Your task to perform on an android device: turn off translation in the chrome app Image 0: 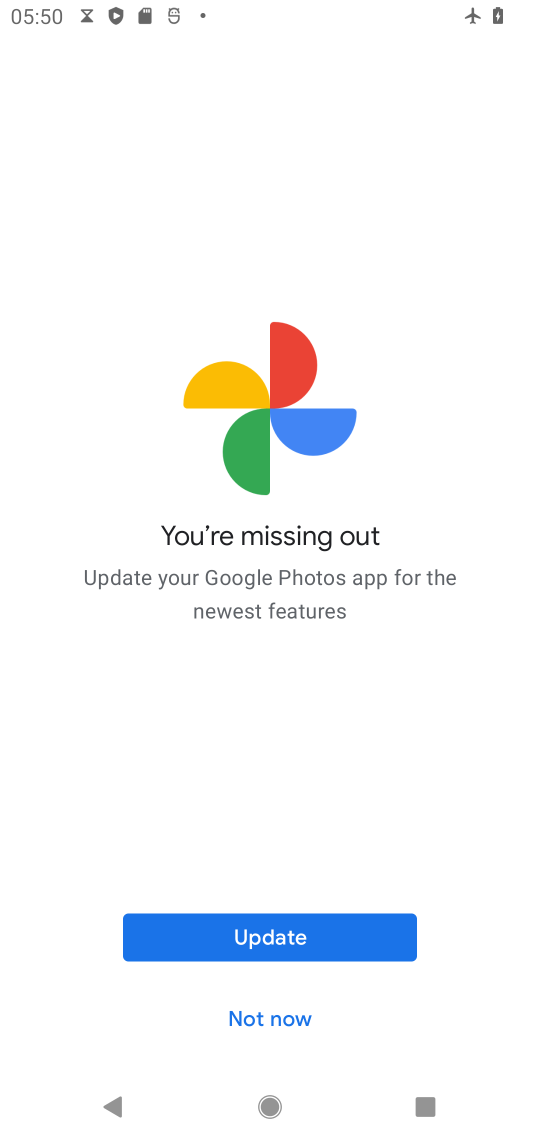
Step 0: press home button
Your task to perform on an android device: turn off translation in the chrome app Image 1: 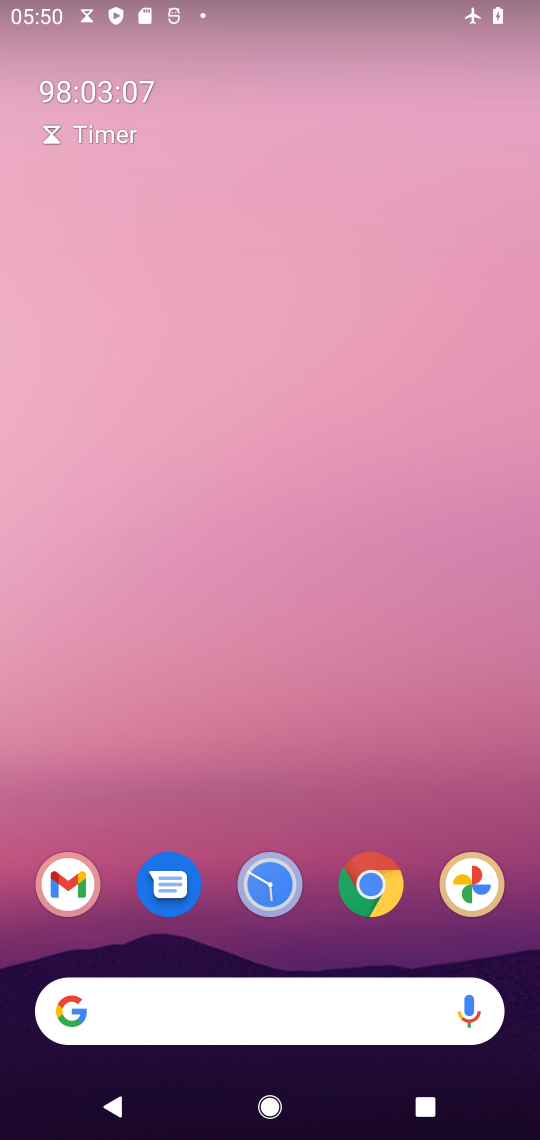
Step 1: drag from (187, 867) to (303, 337)
Your task to perform on an android device: turn off translation in the chrome app Image 2: 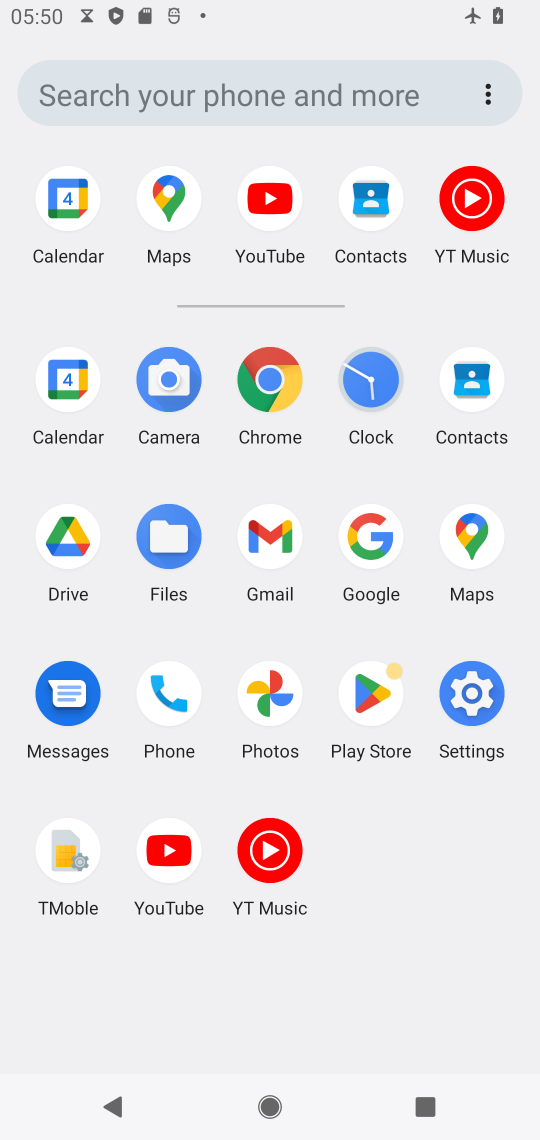
Step 2: click (480, 678)
Your task to perform on an android device: turn off translation in the chrome app Image 3: 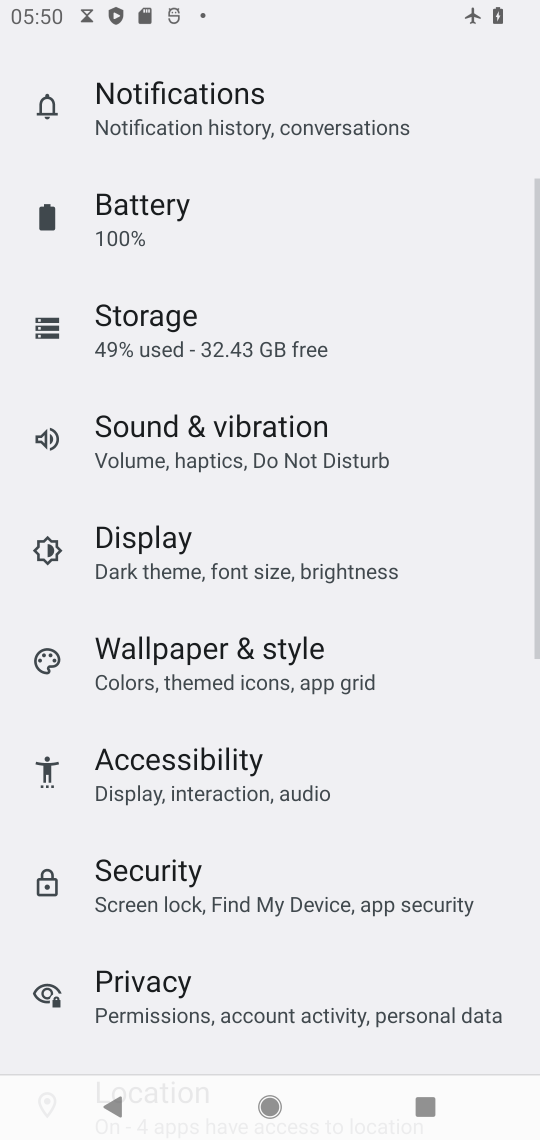
Step 3: press home button
Your task to perform on an android device: turn off translation in the chrome app Image 4: 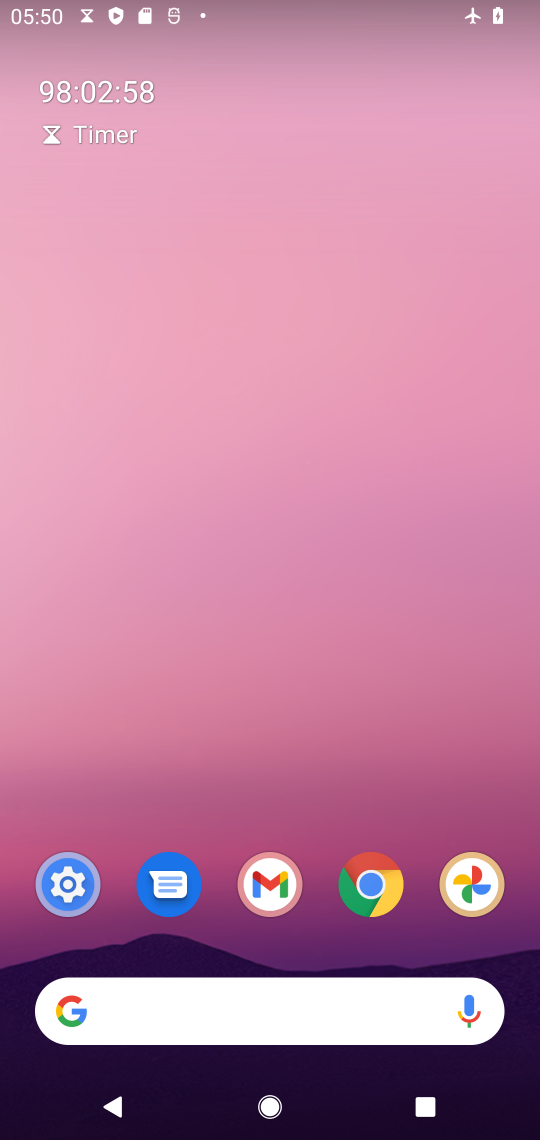
Step 4: drag from (331, 932) to (324, 131)
Your task to perform on an android device: turn off translation in the chrome app Image 5: 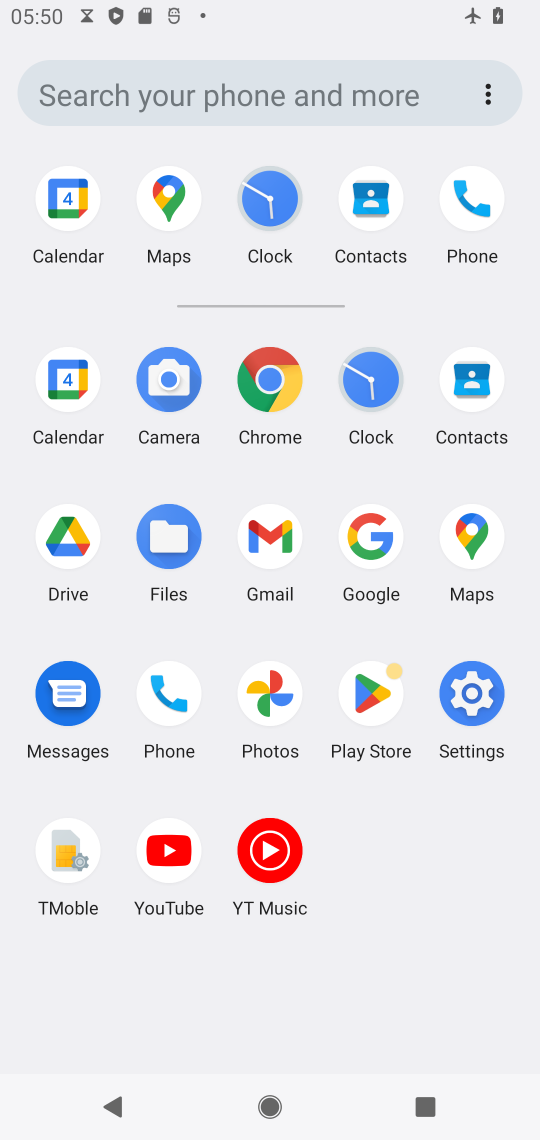
Step 5: click (258, 371)
Your task to perform on an android device: turn off translation in the chrome app Image 6: 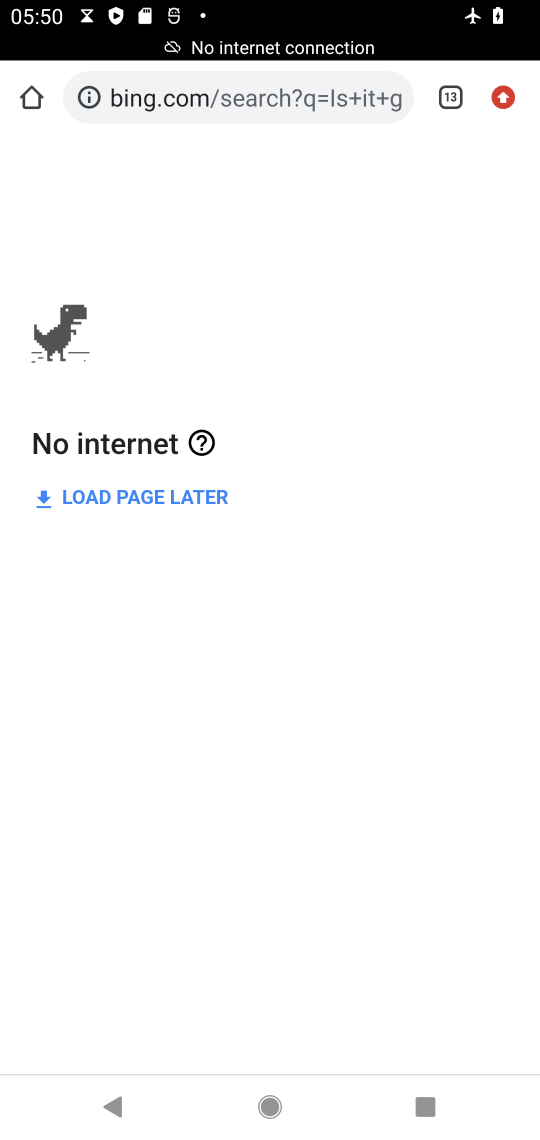
Step 6: click (504, 93)
Your task to perform on an android device: turn off translation in the chrome app Image 7: 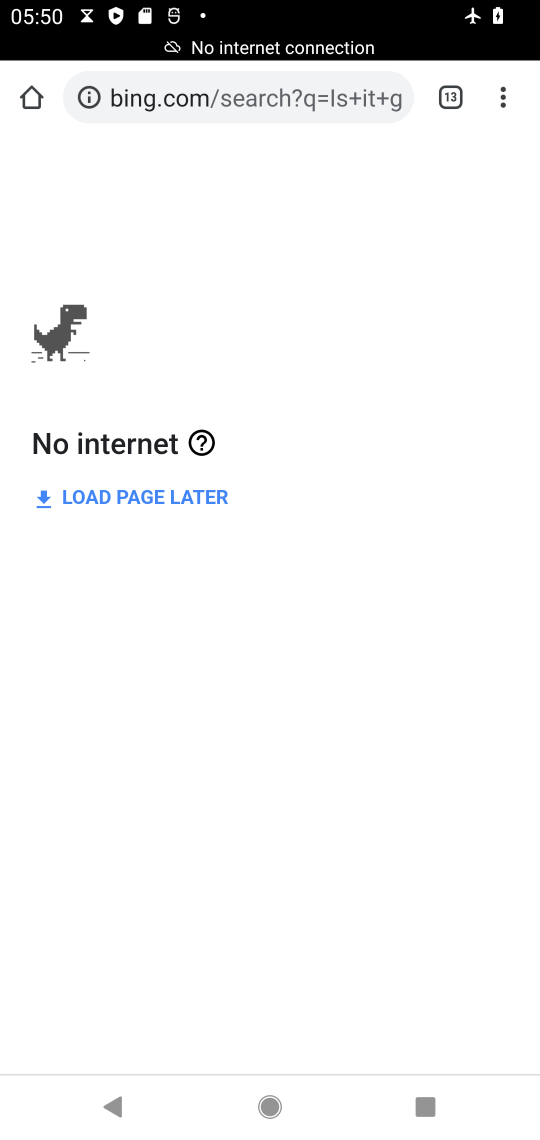
Step 7: click (504, 99)
Your task to perform on an android device: turn off translation in the chrome app Image 8: 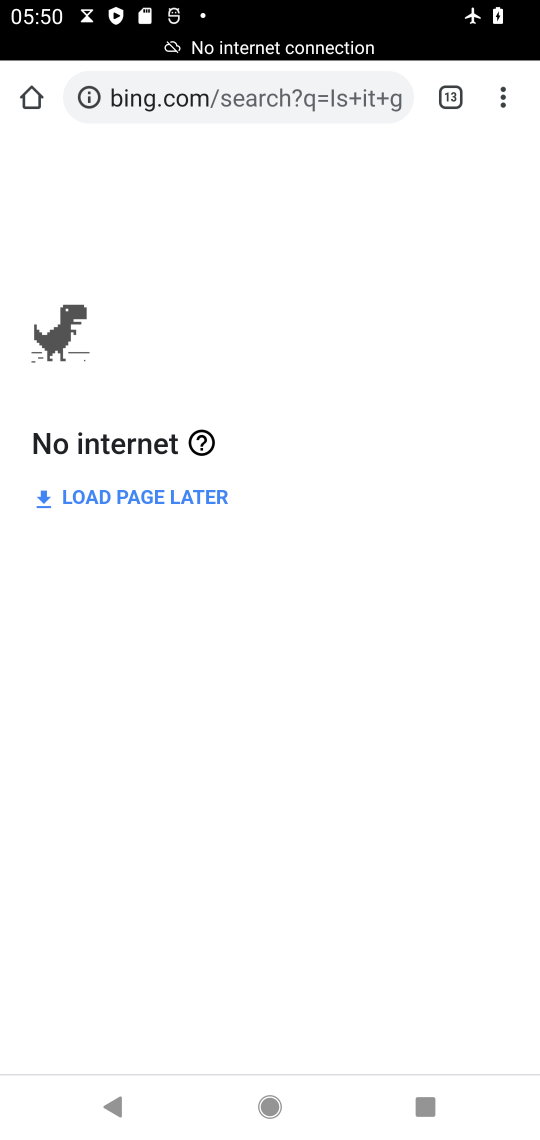
Step 8: click (504, 99)
Your task to perform on an android device: turn off translation in the chrome app Image 9: 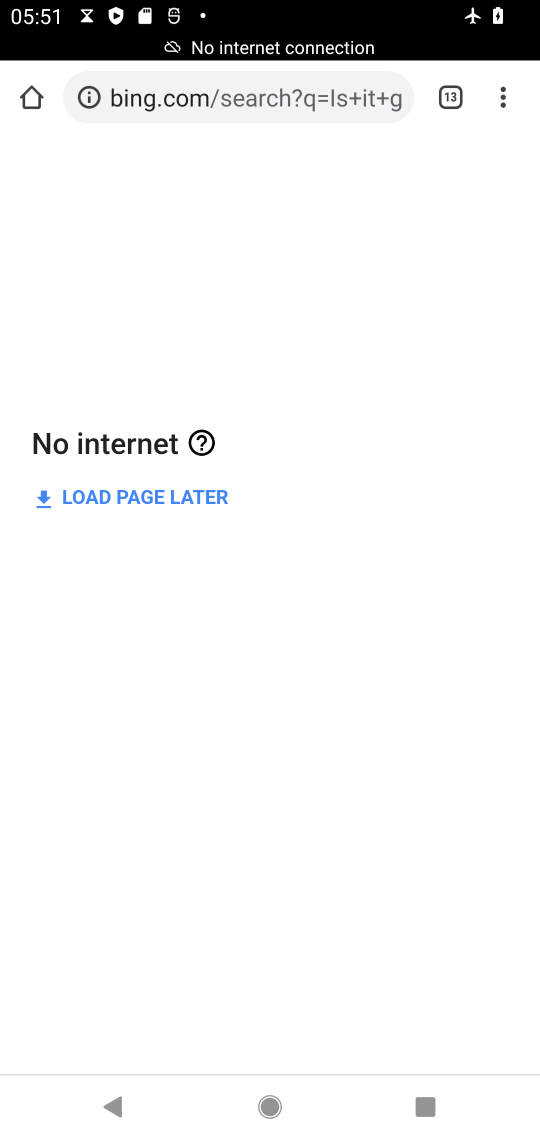
Step 9: click (494, 95)
Your task to perform on an android device: turn off translation in the chrome app Image 10: 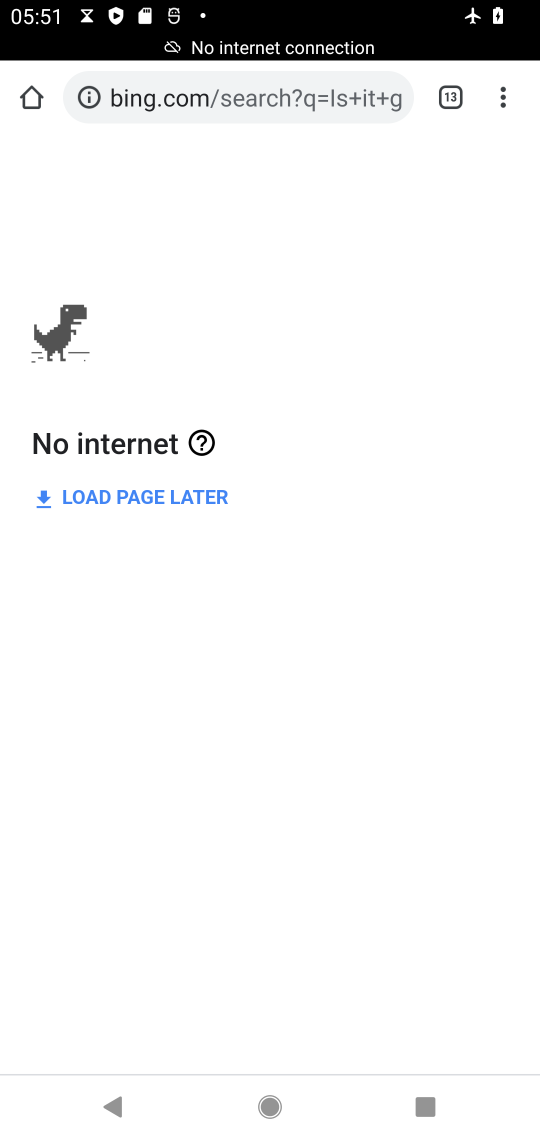
Step 10: click (510, 116)
Your task to perform on an android device: turn off translation in the chrome app Image 11: 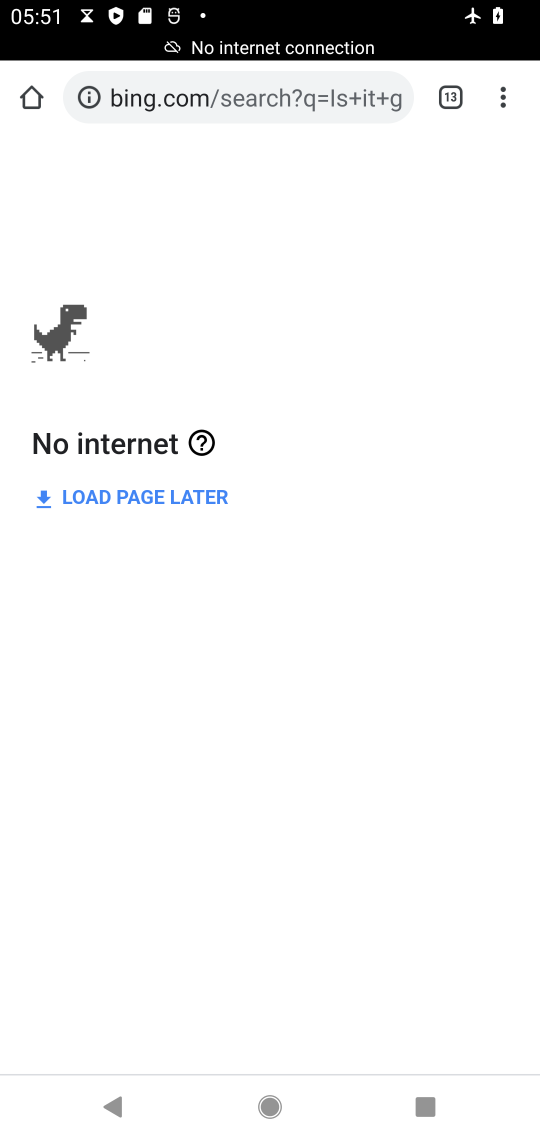
Step 11: click (521, 85)
Your task to perform on an android device: turn off translation in the chrome app Image 12: 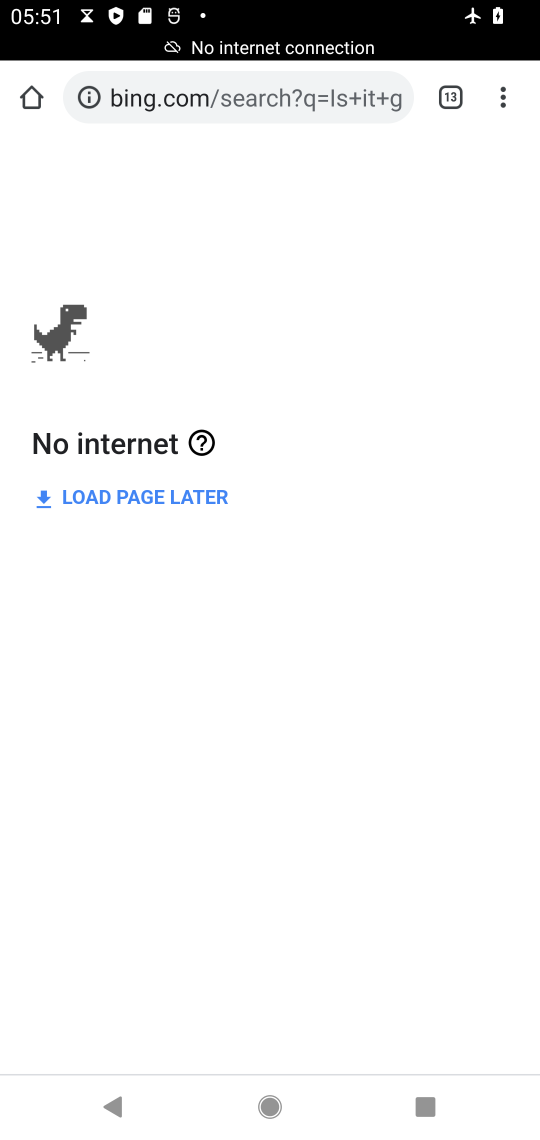
Step 12: click (499, 85)
Your task to perform on an android device: turn off translation in the chrome app Image 13: 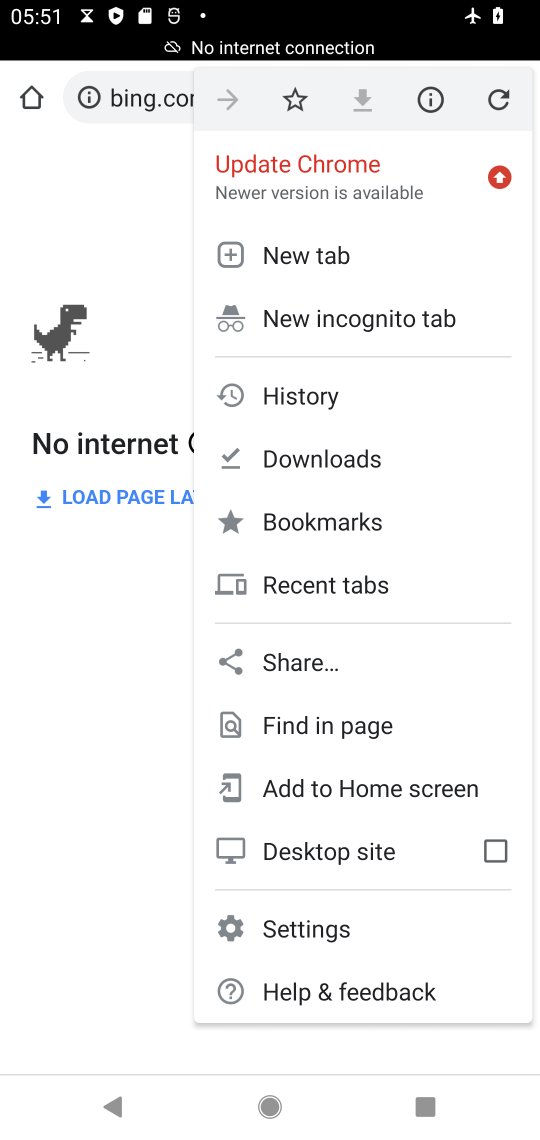
Step 13: click (330, 912)
Your task to perform on an android device: turn off translation in the chrome app Image 14: 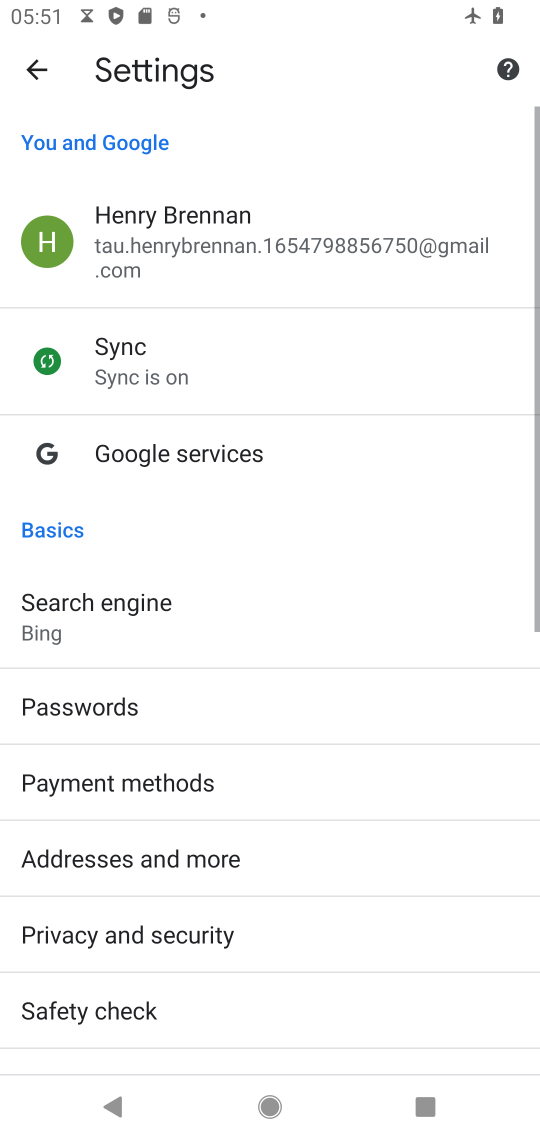
Step 14: drag from (211, 976) to (392, 182)
Your task to perform on an android device: turn off translation in the chrome app Image 15: 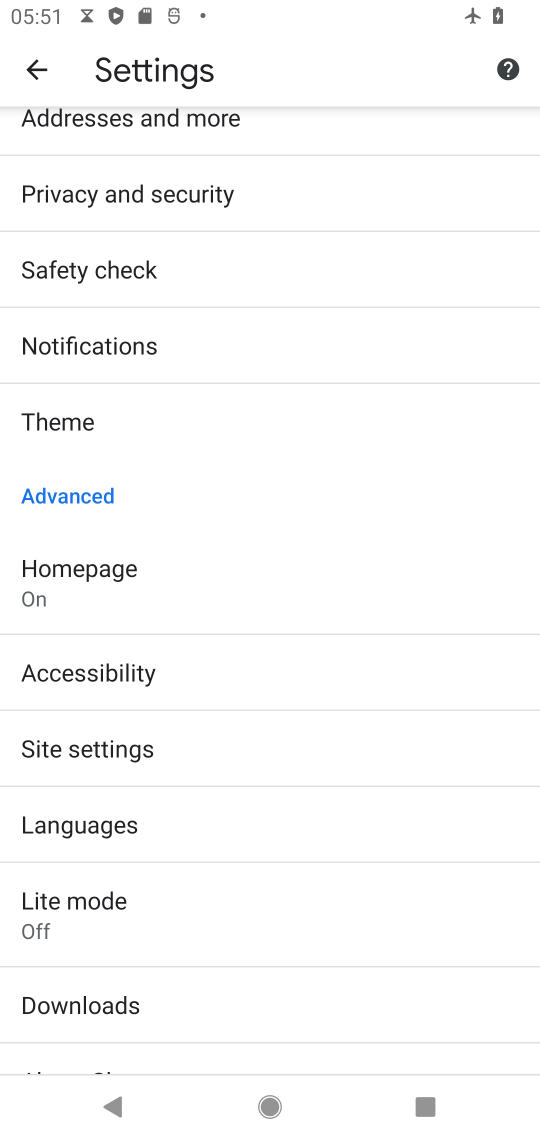
Step 15: click (196, 815)
Your task to perform on an android device: turn off translation in the chrome app Image 16: 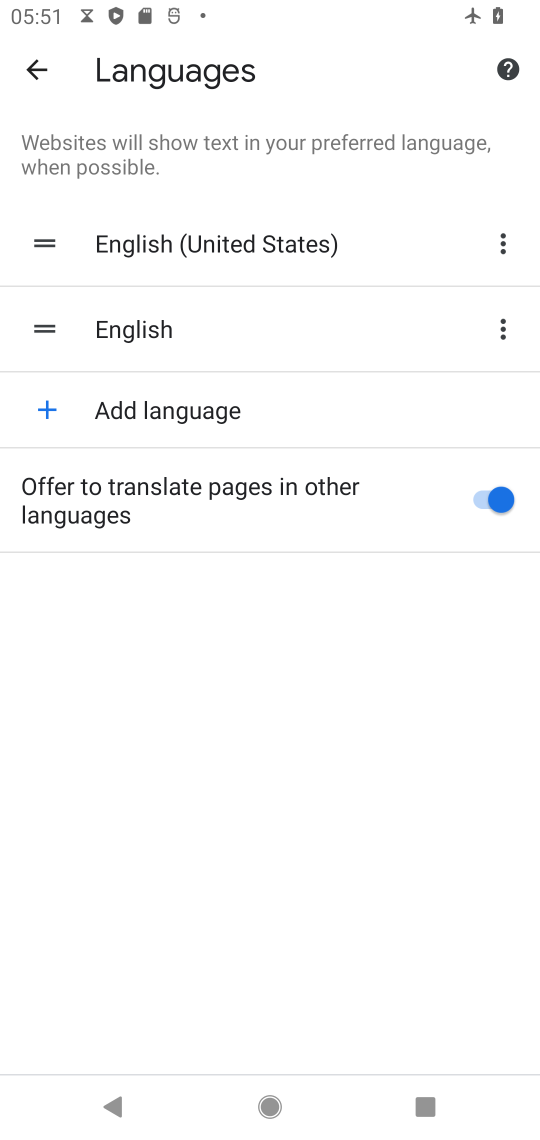
Step 16: click (483, 481)
Your task to perform on an android device: turn off translation in the chrome app Image 17: 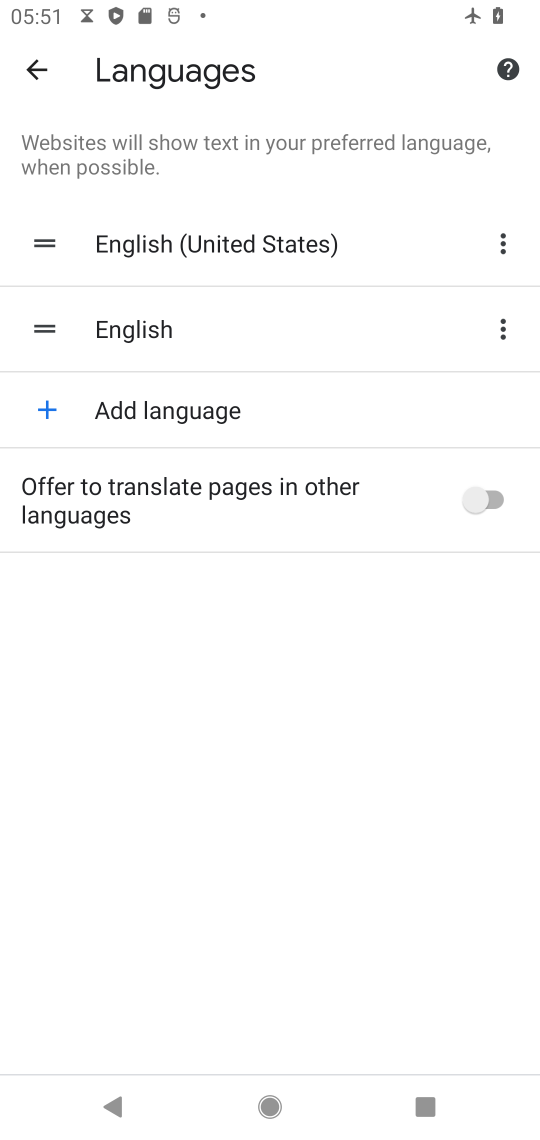
Step 17: task complete